Your task to perform on an android device: turn off airplane mode Image 0: 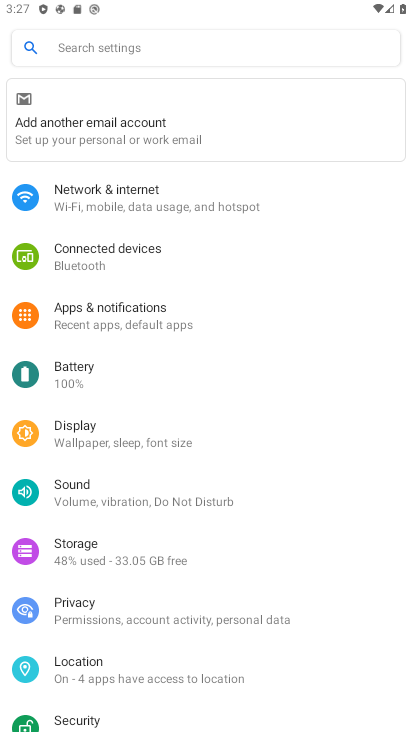
Step 0: click (122, 195)
Your task to perform on an android device: turn off airplane mode Image 1: 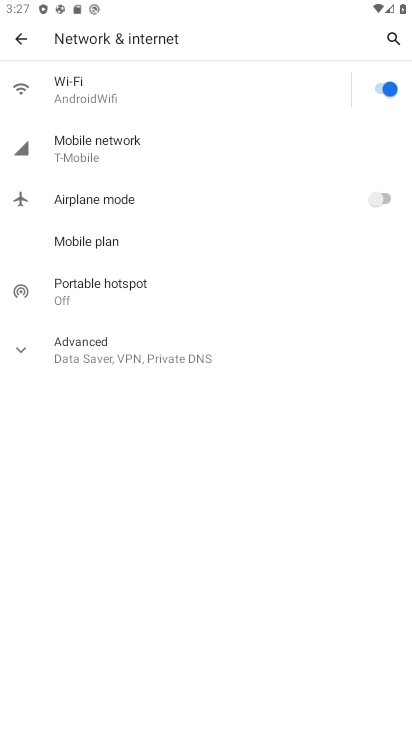
Step 1: task complete